Your task to perform on an android device: What's on my calendar today? Image 0: 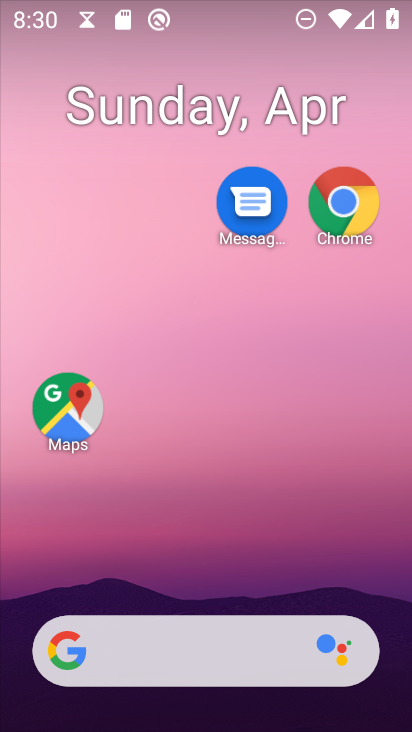
Step 0: drag from (146, 628) to (170, 3)
Your task to perform on an android device: What's on my calendar today? Image 1: 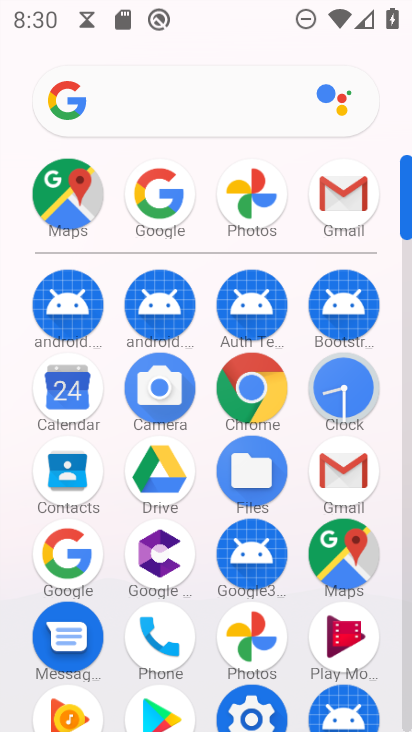
Step 1: click (67, 390)
Your task to perform on an android device: What's on my calendar today? Image 2: 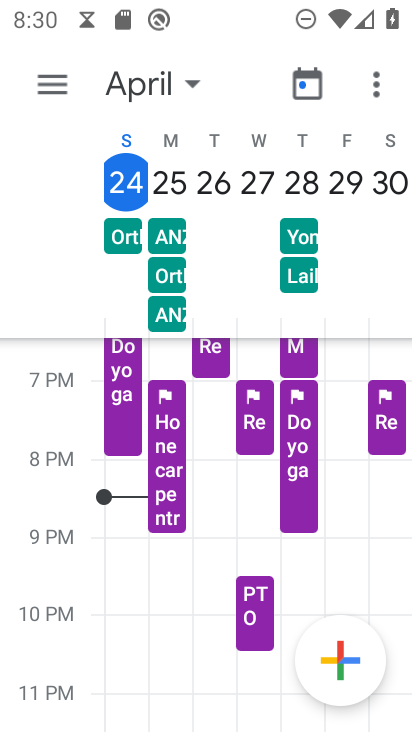
Step 2: click (131, 86)
Your task to perform on an android device: What's on my calendar today? Image 3: 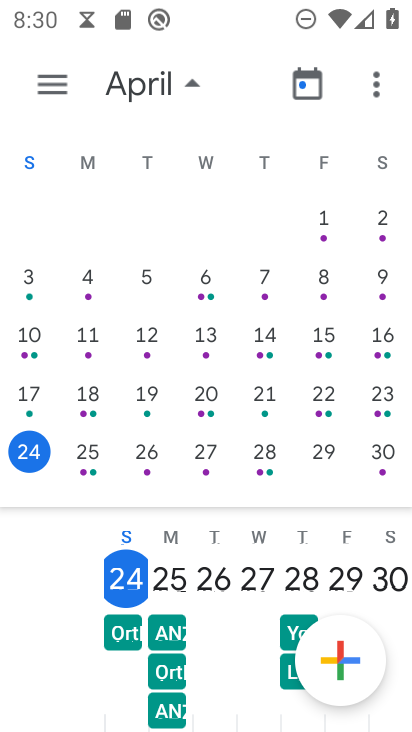
Step 3: click (29, 456)
Your task to perform on an android device: What's on my calendar today? Image 4: 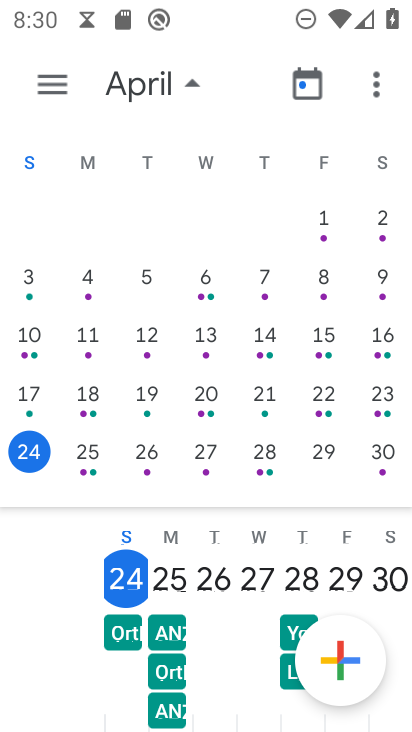
Step 4: click (53, 82)
Your task to perform on an android device: What's on my calendar today? Image 5: 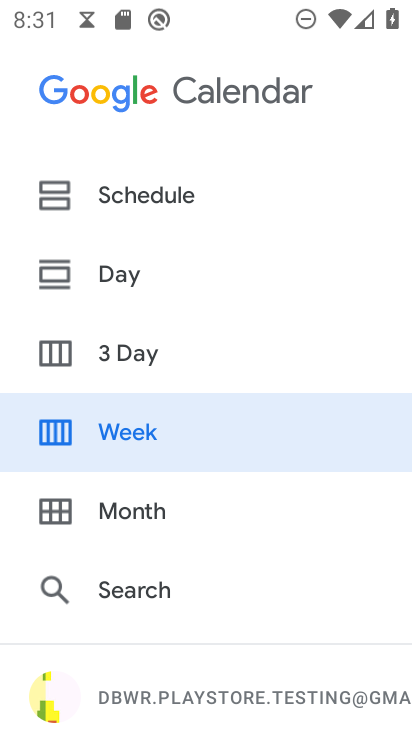
Step 5: click (126, 269)
Your task to perform on an android device: What's on my calendar today? Image 6: 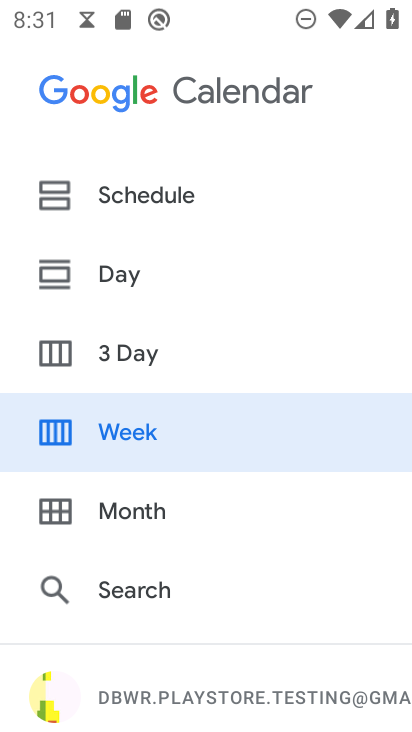
Step 6: click (130, 276)
Your task to perform on an android device: What's on my calendar today? Image 7: 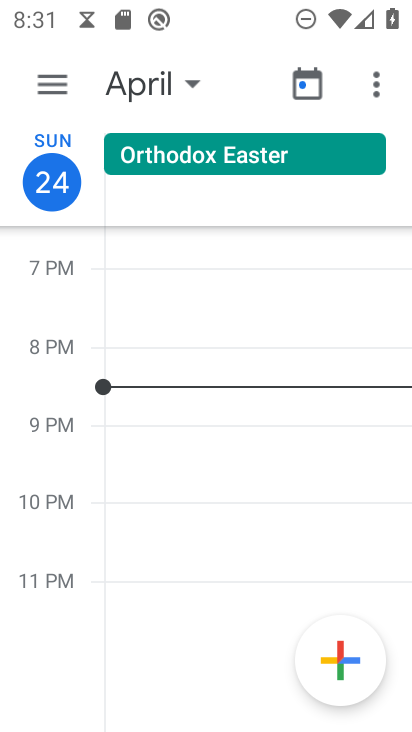
Step 7: click (53, 81)
Your task to perform on an android device: What's on my calendar today? Image 8: 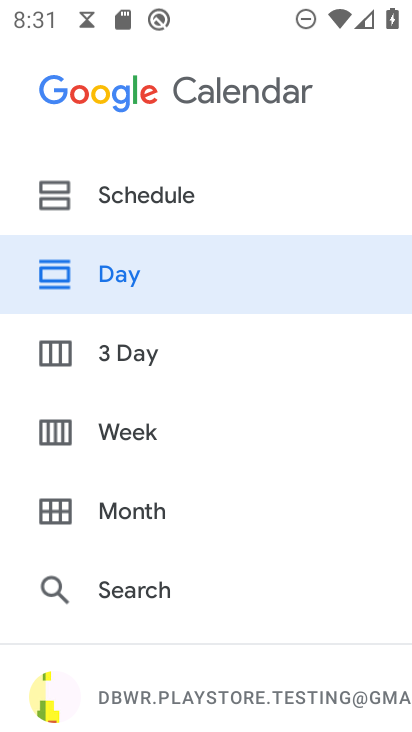
Step 8: click (117, 207)
Your task to perform on an android device: What's on my calendar today? Image 9: 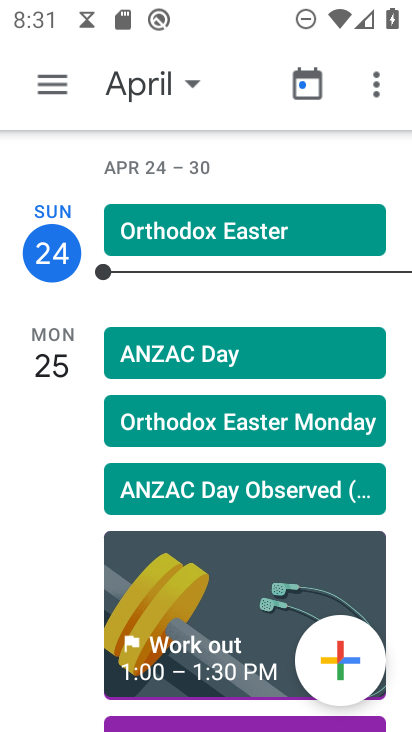
Step 9: click (248, 231)
Your task to perform on an android device: What's on my calendar today? Image 10: 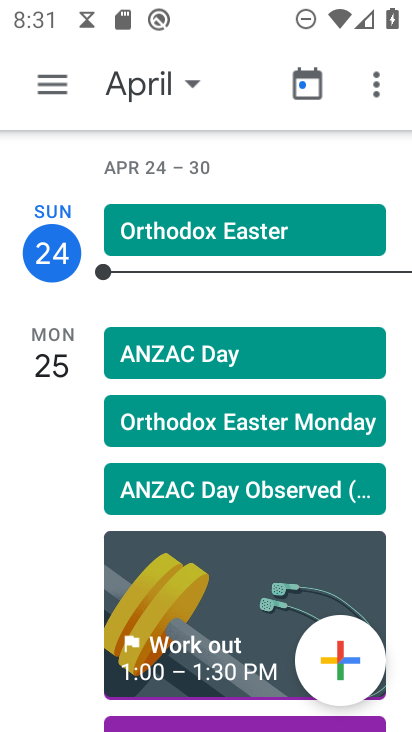
Step 10: click (217, 241)
Your task to perform on an android device: What's on my calendar today? Image 11: 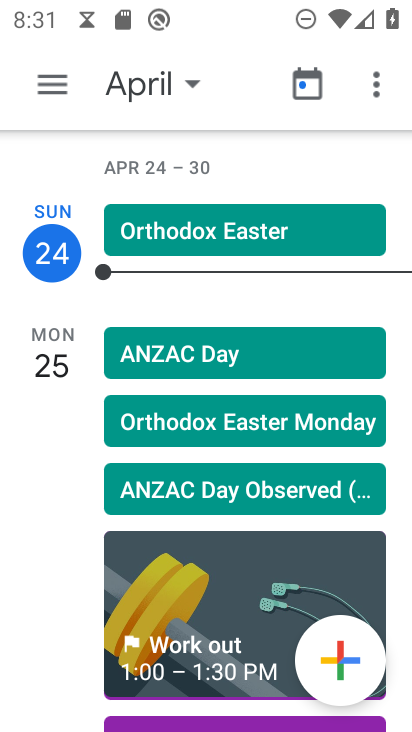
Step 11: task complete